Your task to perform on an android device: Clear all items from cart on ebay.com. Search for beats solo 3 on ebay.com, select the first entry, and add it to the cart. Image 0: 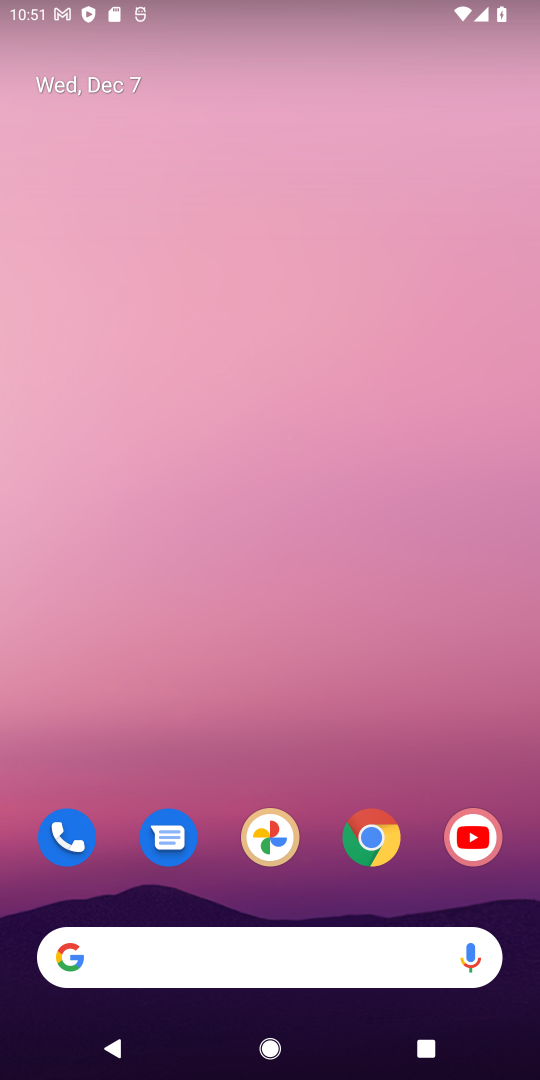
Step 0: click (363, 821)
Your task to perform on an android device: Clear all items from cart on ebay.com. Search for beats solo 3 on ebay.com, select the first entry, and add it to the cart. Image 1: 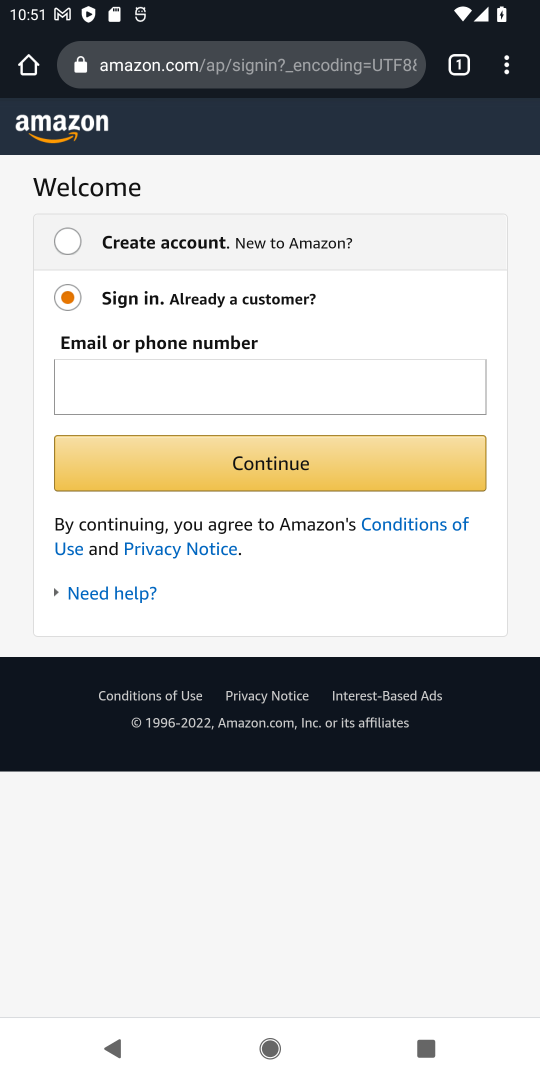
Step 1: click (315, 62)
Your task to perform on an android device: Clear all items from cart on ebay.com. Search for beats solo 3 on ebay.com, select the first entry, and add it to the cart. Image 2: 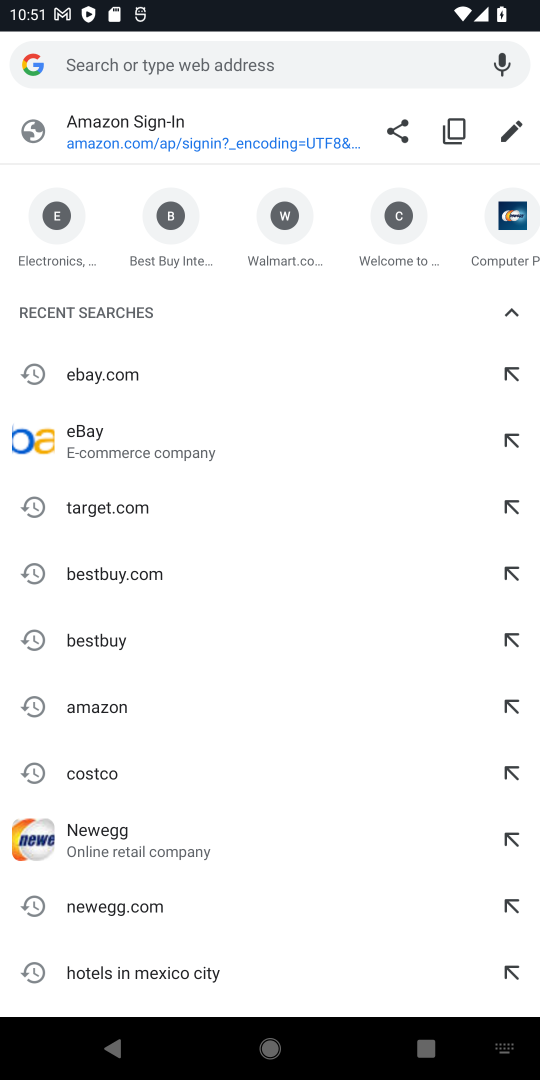
Step 2: type "ebay.com"
Your task to perform on an android device: Clear all items from cart on ebay.com. Search for beats solo 3 on ebay.com, select the first entry, and add it to the cart. Image 3: 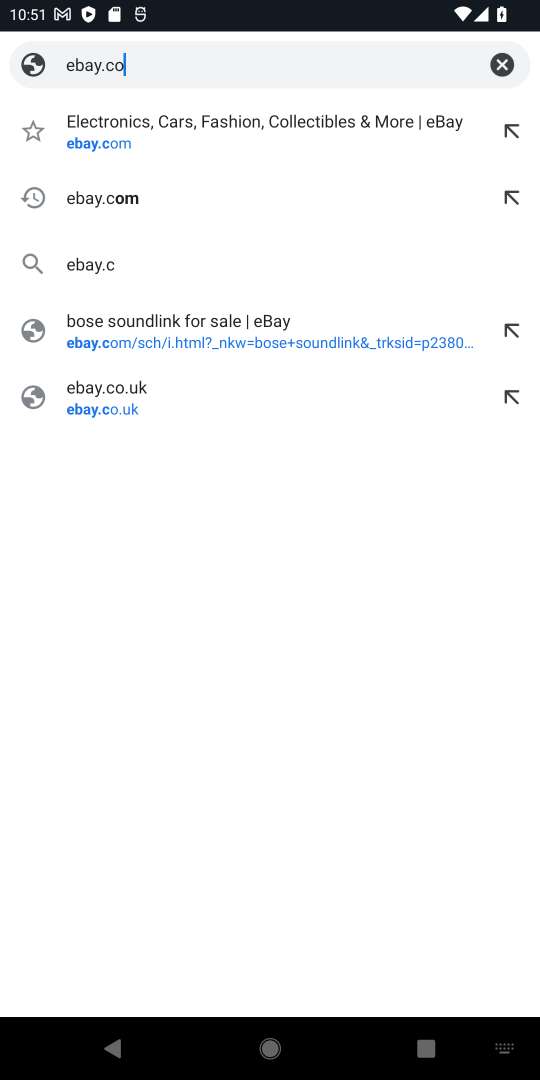
Step 3: press enter
Your task to perform on an android device: Clear all items from cart on ebay.com. Search for beats solo 3 on ebay.com, select the first entry, and add it to the cart. Image 4: 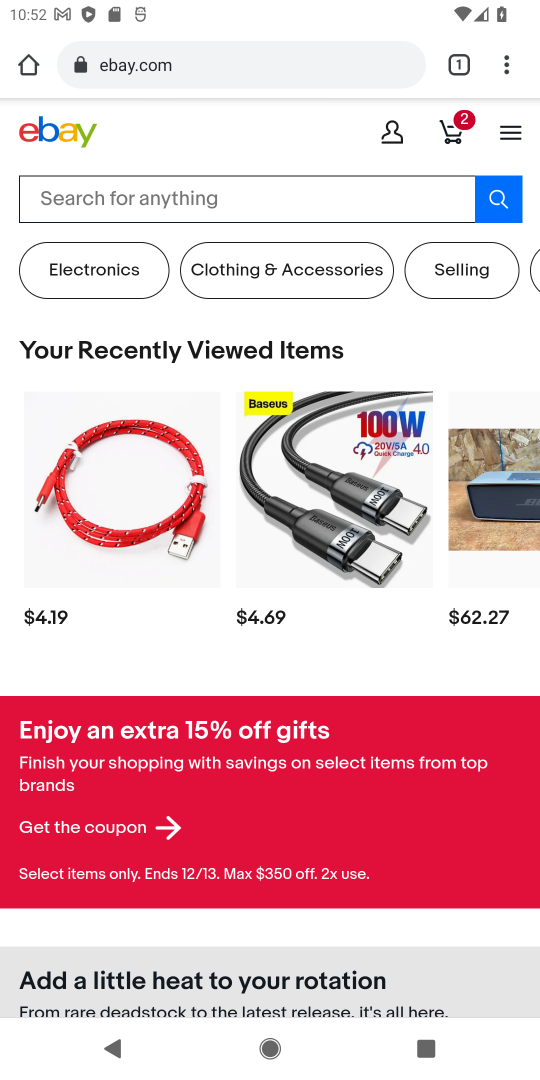
Step 4: click (454, 131)
Your task to perform on an android device: Clear all items from cart on ebay.com. Search for beats solo 3 on ebay.com, select the first entry, and add it to the cart. Image 5: 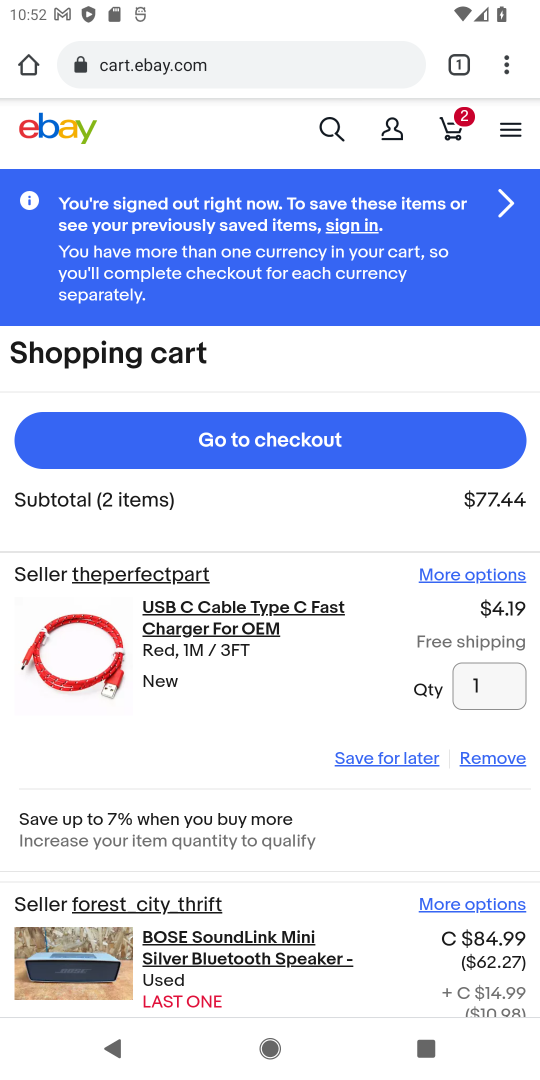
Step 5: click (498, 756)
Your task to perform on an android device: Clear all items from cart on ebay.com. Search for beats solo 3 on ebay.com, select the first entry, and add it to the cart. Image 6: 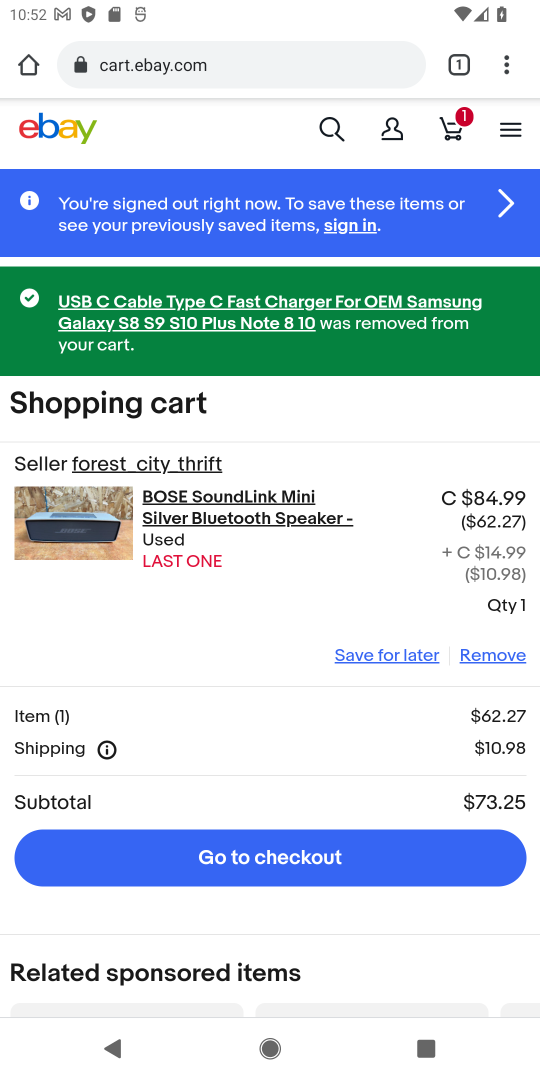
Step 6: click (505, 650)
Your task to perform on an android device: Clear all items from cart on ebay.com. Search for beats solo 3 on ebay.com, select the first entry, and add it to the cart. Image 7: 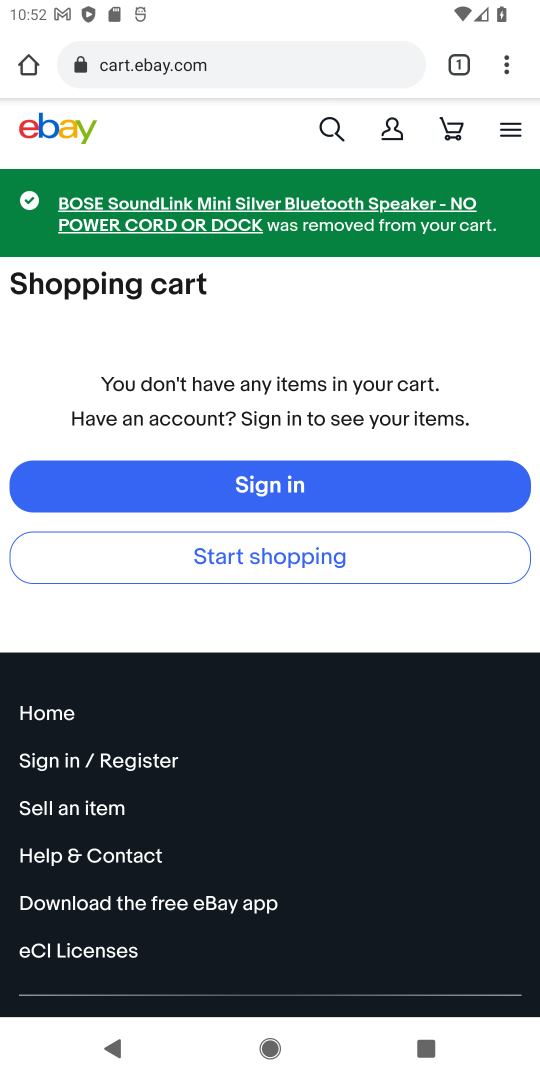
Step 7: click (331, 131)
Your task to perform on an android device: Clear all items from cart on ebay.com. Search for beats solo 3 on ebay.com, select the first entry, and add it to the cart. Image 8: 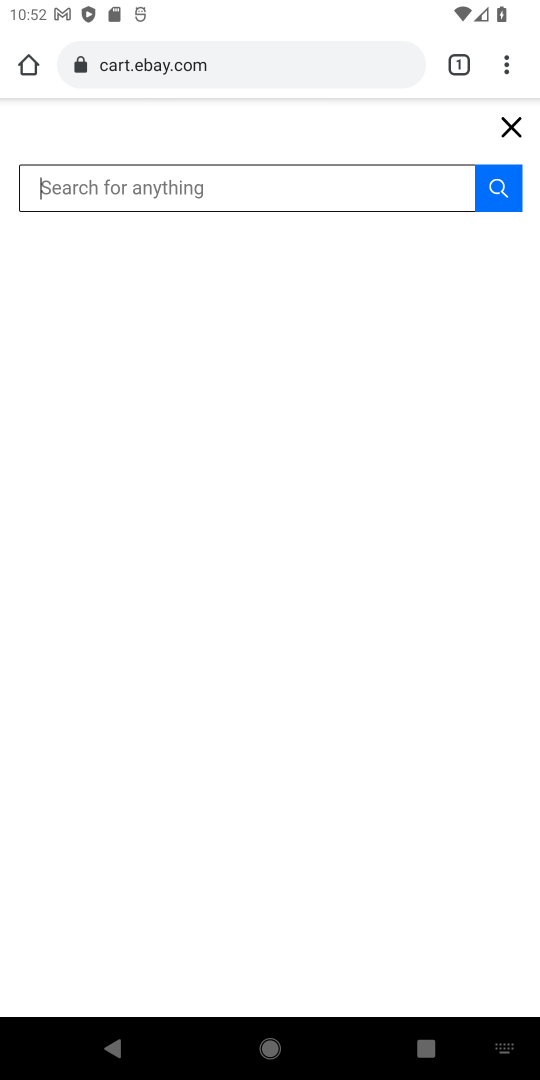
Step 8: type "beats solo 3"
Your task to perform on an android device: Clear all items from cart on ebay.com. Search for beats solo 3 on ebay.com, select the first entry, and add it to the cart. Image 9: 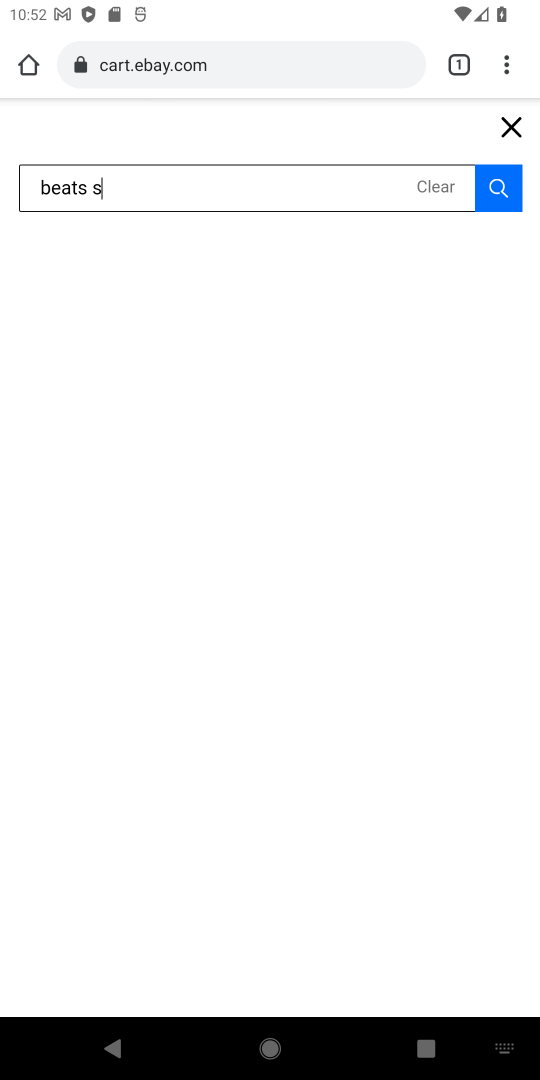
Step 9: press enter
Your task to perform on an android device: Clear all items from cart on ebay.com. Search for beats solo 3 on ebay.com, select the first entry, and add it to the cart. Image 10: 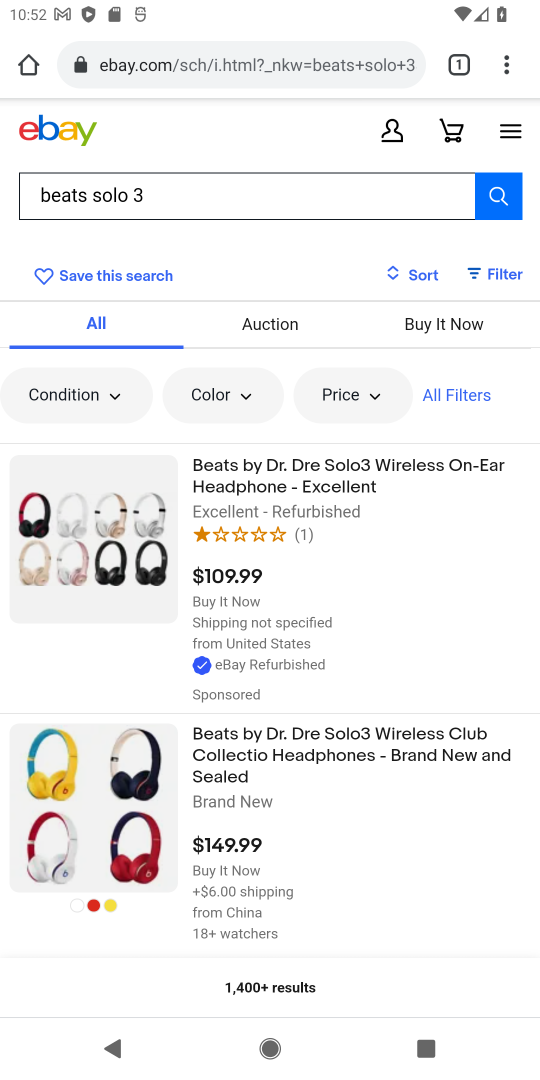
Step 10: click (455, 827)
Your task to perform on an android device: Clear all items from cart on ebay.com. Search for beats solo 3 on ebay.com, select the first entry, and add it to the cart. Image 11: 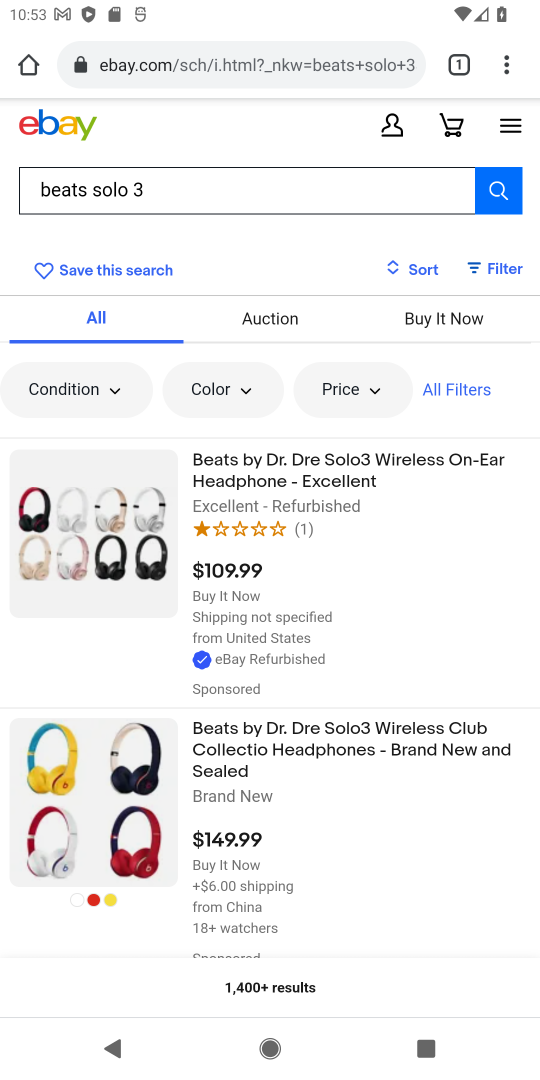
Step 11: click (129, 524)
Your task to perform on an android device: Clear all items from cart on ebay.com. Search for beats solo 3 on ebay.com, select the first entry, and add it to the cart. Image 12: 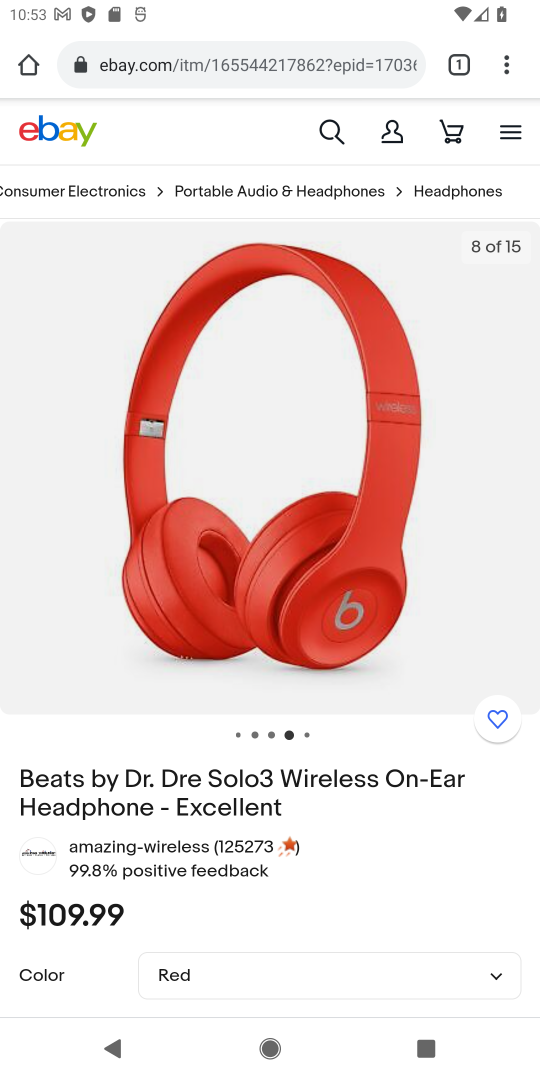
Step 12: drag from (332, 770) to (317, 434)
Your task to perform on an android device: Clear all items from cart on ebay.com. Search for beats solo 3 on ebay.com, select the first entry, and add it to the cart. Image 13: 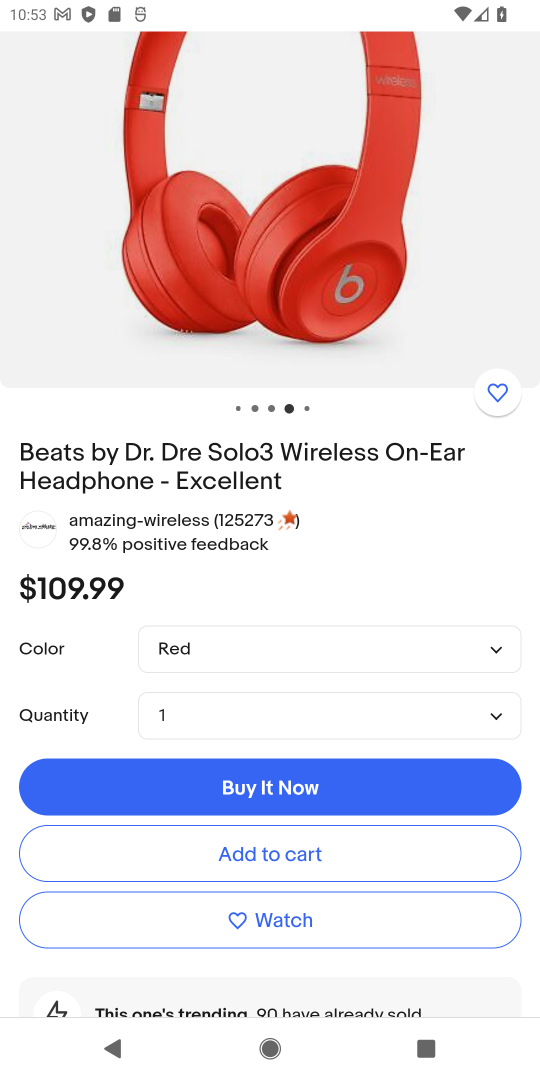
Step 13: click (268, 855)
Your task to perform on an android device: Clear all items from cart on ebay.com. Search for beats solo 3 on ebay.com, select the first entry, and add it to the cart. Image 14: 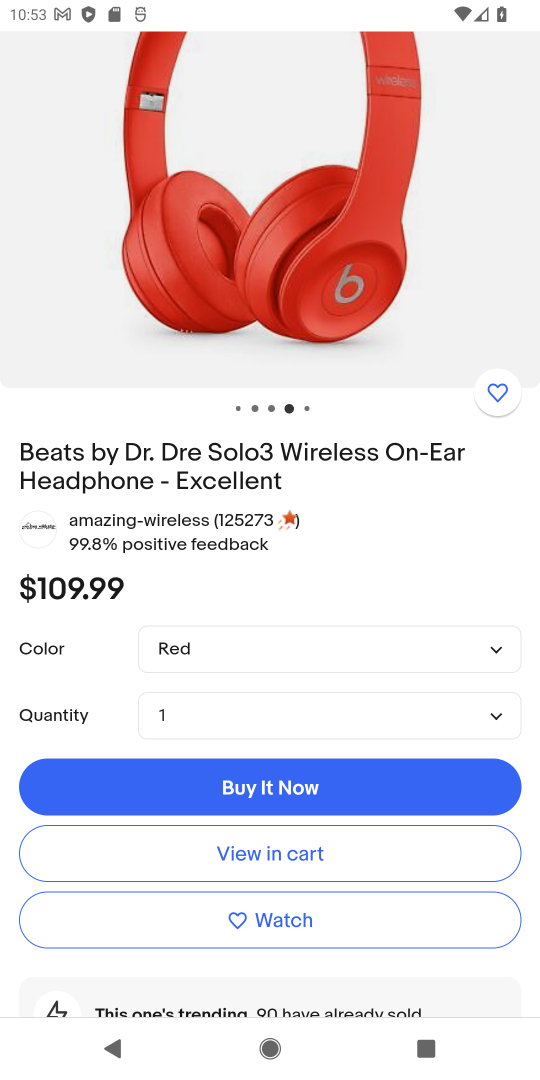
Step 14: click (268, 855)
Your task to perform on an android device: Clear all items from cart on ebay.com. Search for beats solo 3 on ebay.com, select the first entry, and add it to the cart. Image 15: 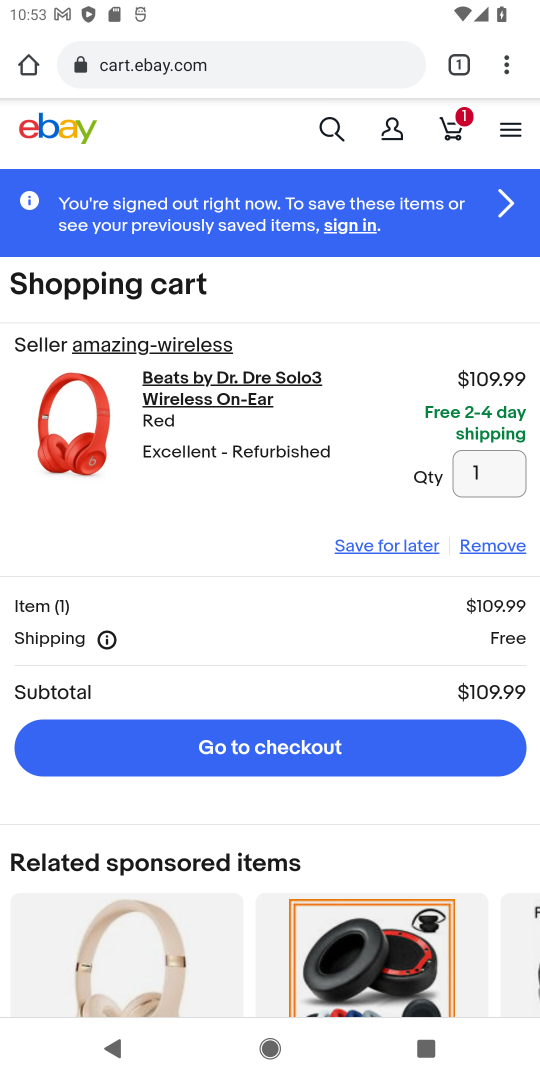
Step 15: task complete